Your task to perform on an android device: Open eBay Image 0: 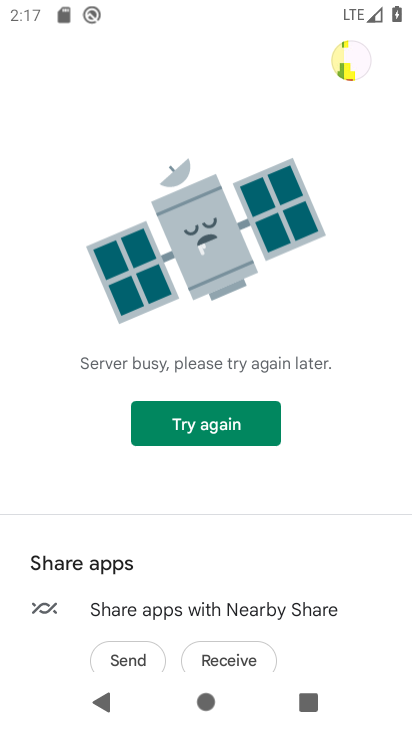
Step 0: press home button
Your task to perform on an android device: Open eBay Image 1: 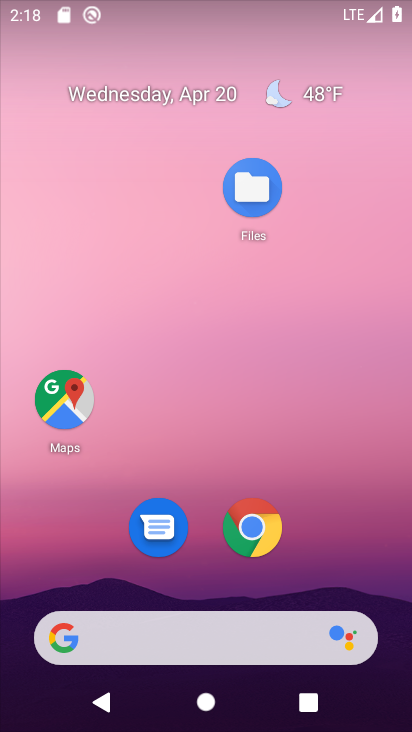
Step 1: click (250, 521)
Your task to perform on an android device: Open eBay Image 2: 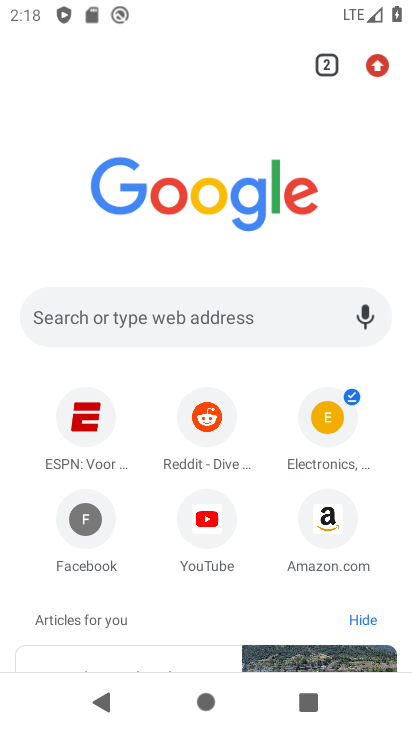
Step 2: click (70, 305)
Your task to perform on an android device: Open eBay Image 3: 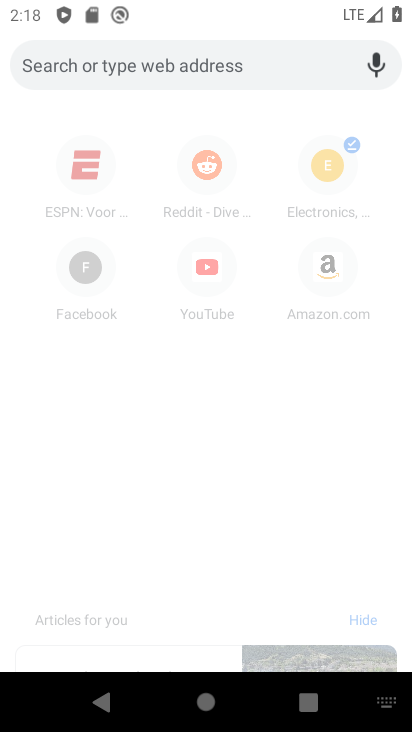
Step 3: type "ebay"
Your task to perform on an android device: Open eBay Image 4: 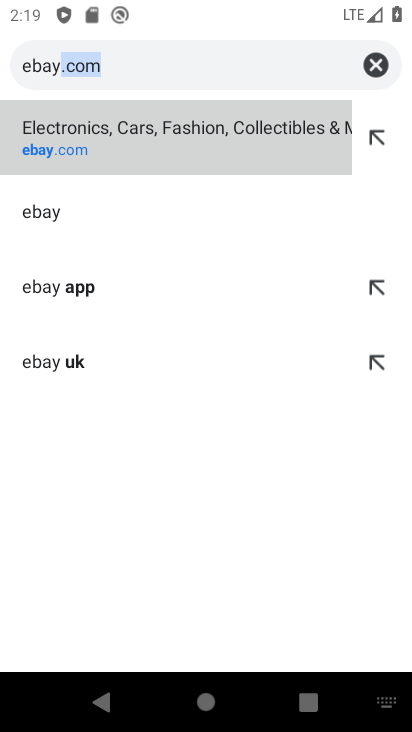
Step 4: click (101, 223)
Your task to perform on an android device: Open eBay Image 5: 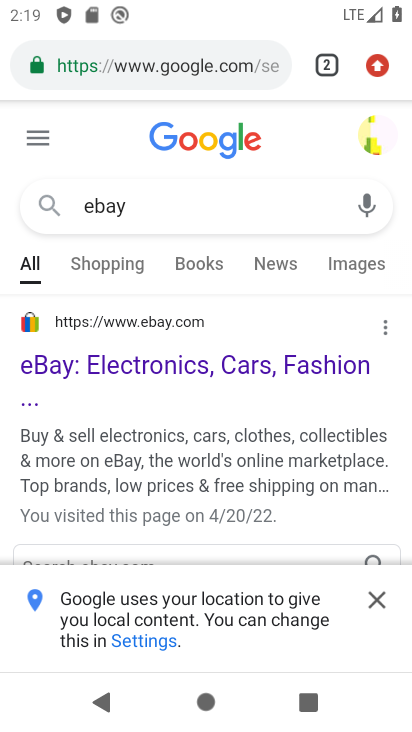
Step 5: task complete